Your task to perform on an android device: turn on improve location accuracy Image 0: 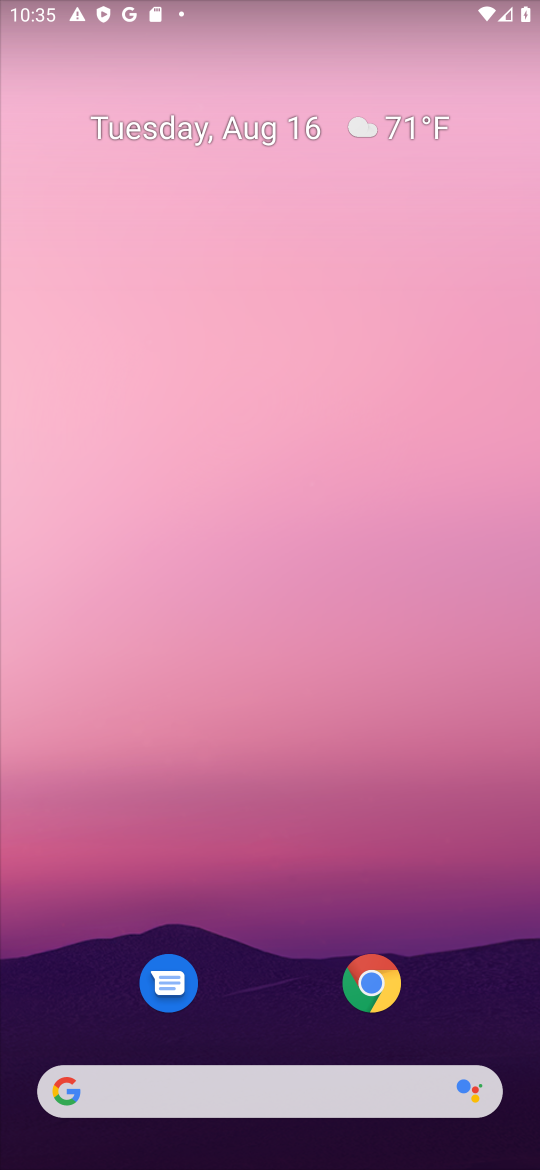
Step 0: drag from (234, 1083) to (330, 60)
Your task to perform on an android device: turn on improve location accuracy Image 1: 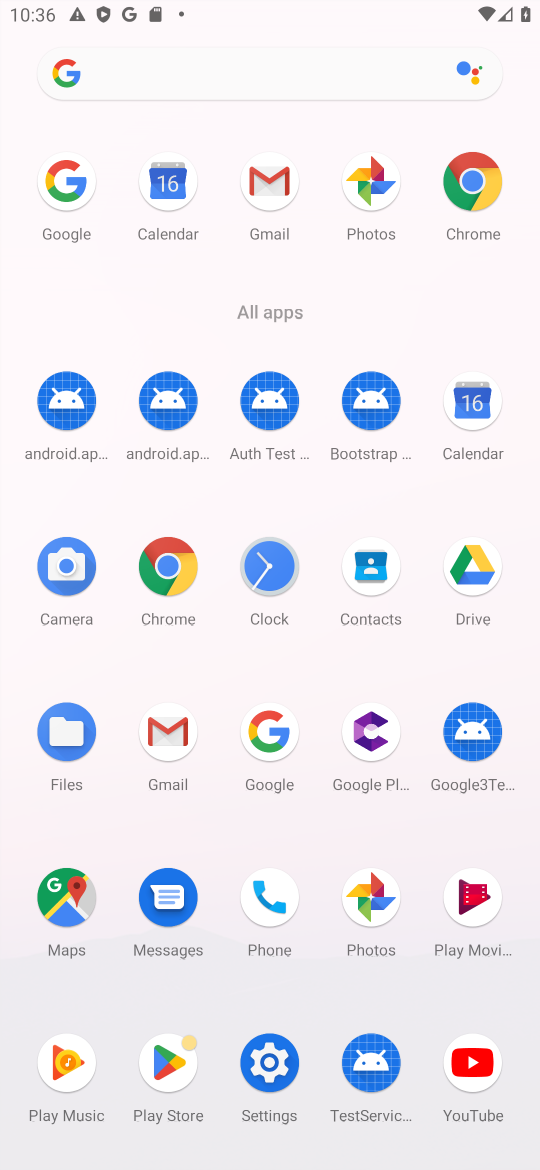
Step 1: click (278, 1059)
Your task to perform on an android device: turn on improve location accuracy Image 2: 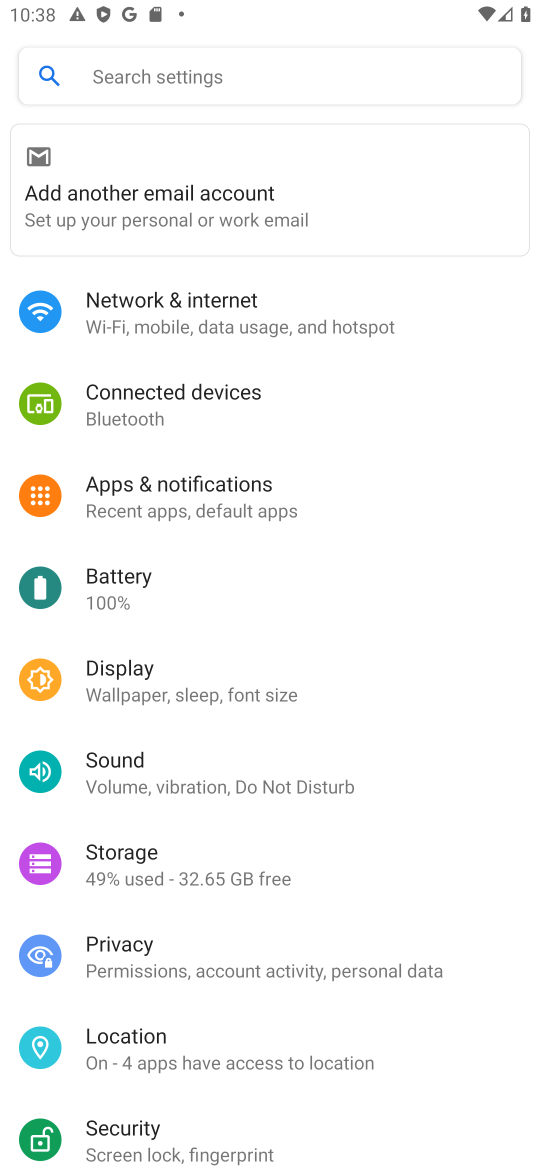
Step 2: click (159, 1036)
Your task to perform on an android device: turn on improve location accuracy Image 3: 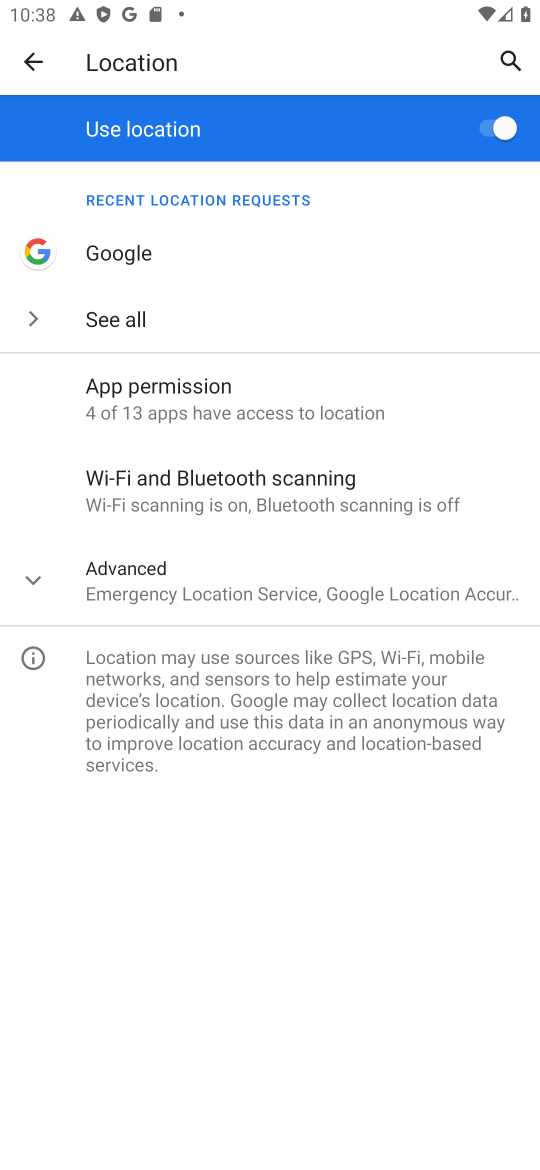
Step 3: click (192, 571)
Your task to perform on an android device: turn on improve location accuracy Image 4: 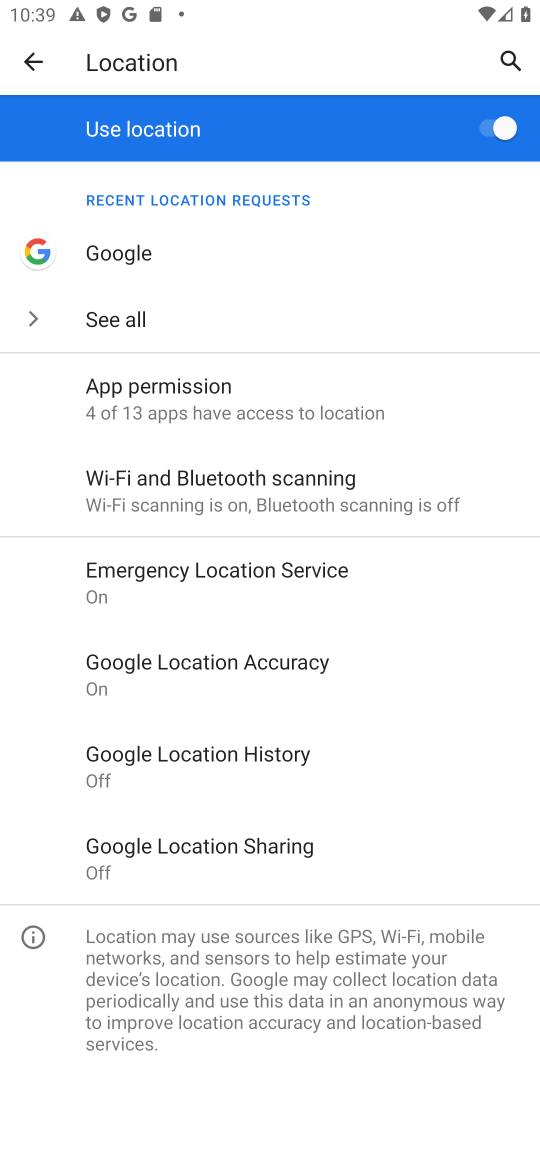
Step 4: click (261, 662)
Your task to perform on an android device: turn on improve location accuracy Image 5: 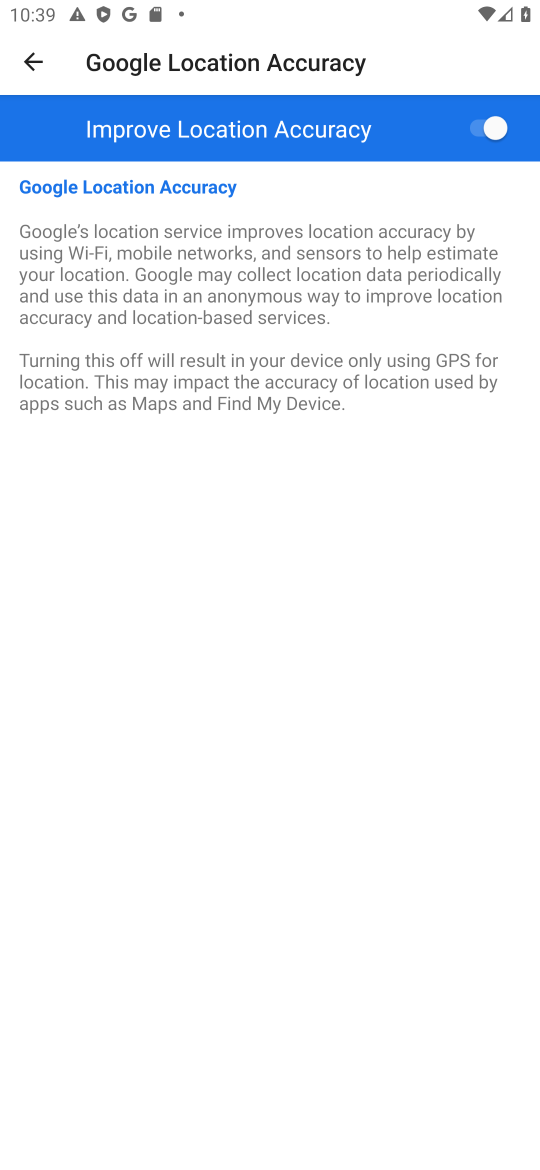
Step 5: task complete